Your task to perform on an android device: Open Google Chrome Image 0: 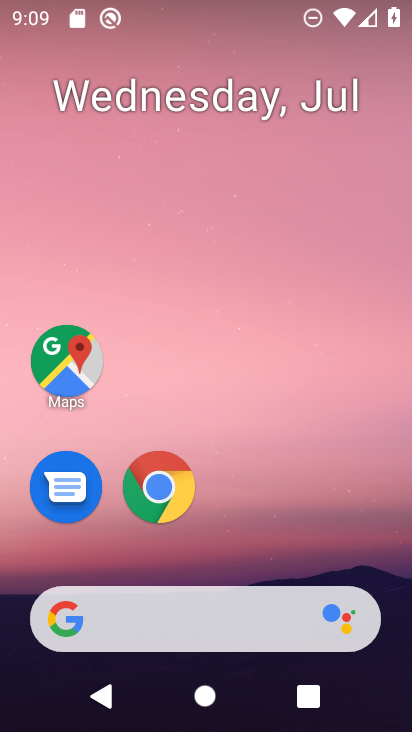
Step 0: drag from (376, 516) to (378, 113)
Your task to perform on an android device: Open Google Chrome Image 1: 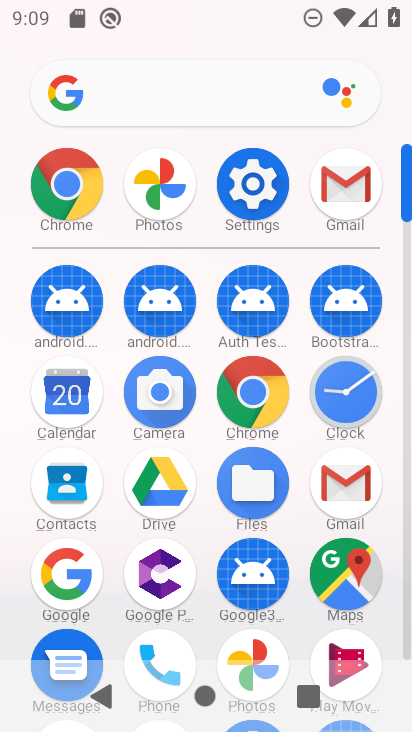
Step 1: click (265, 381)
Your task to perform on an android device: Open Google Chrome Image 2: 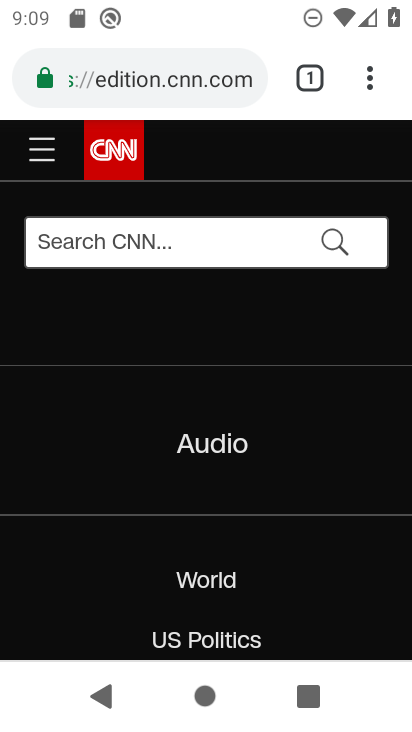
Step 2: task complete